Your task to perform on an android device: uninstall "Grab" Image 0: 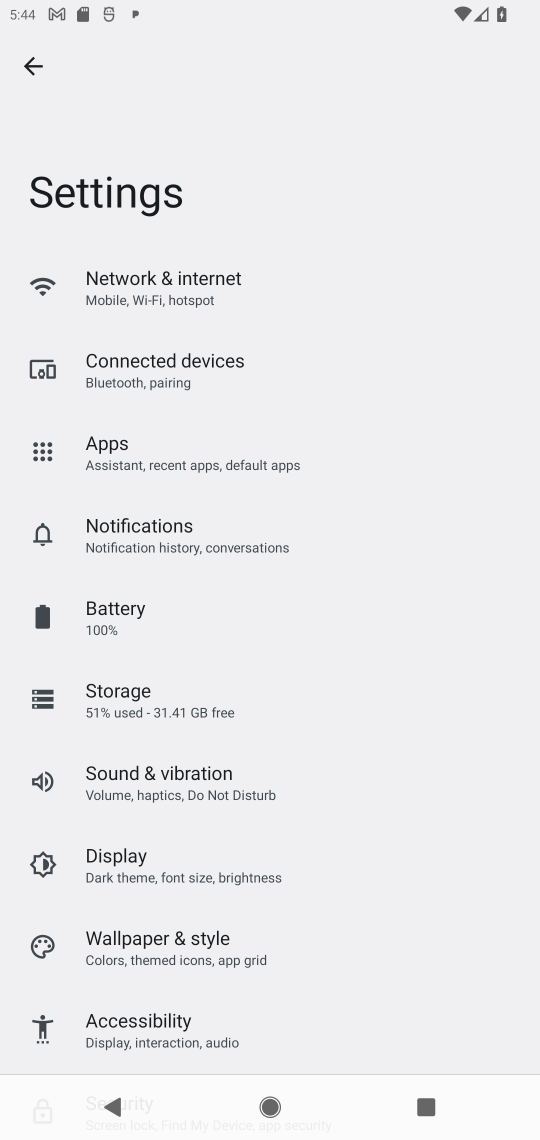
Step 0: press home button
Your task to perform on an android device: uninstall "Grab" Image 1: 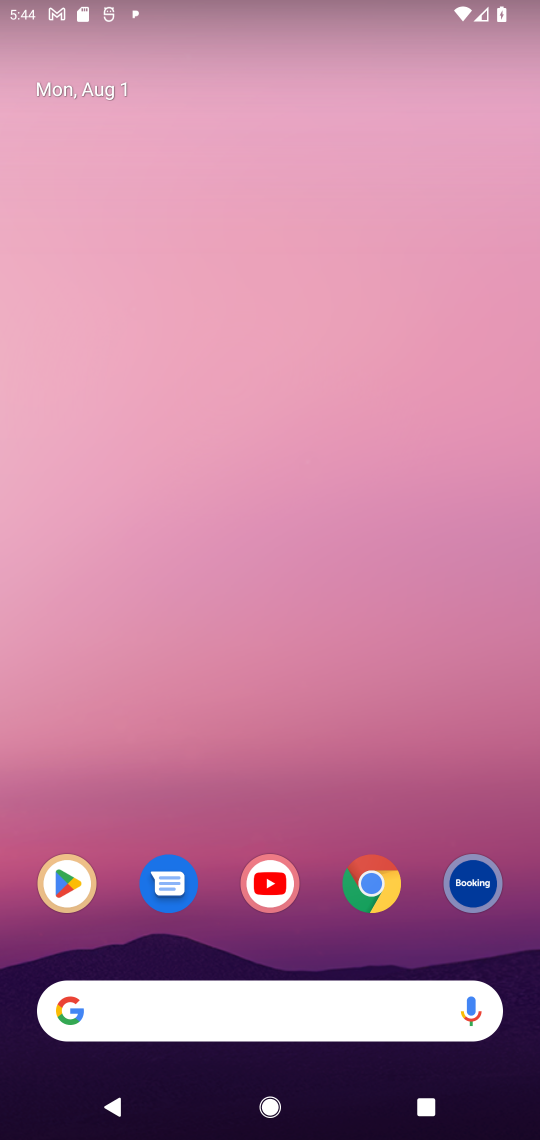
Step 1: click (65, 889)
Your task to perform on an android device: uninstall "Grab" Image 2: 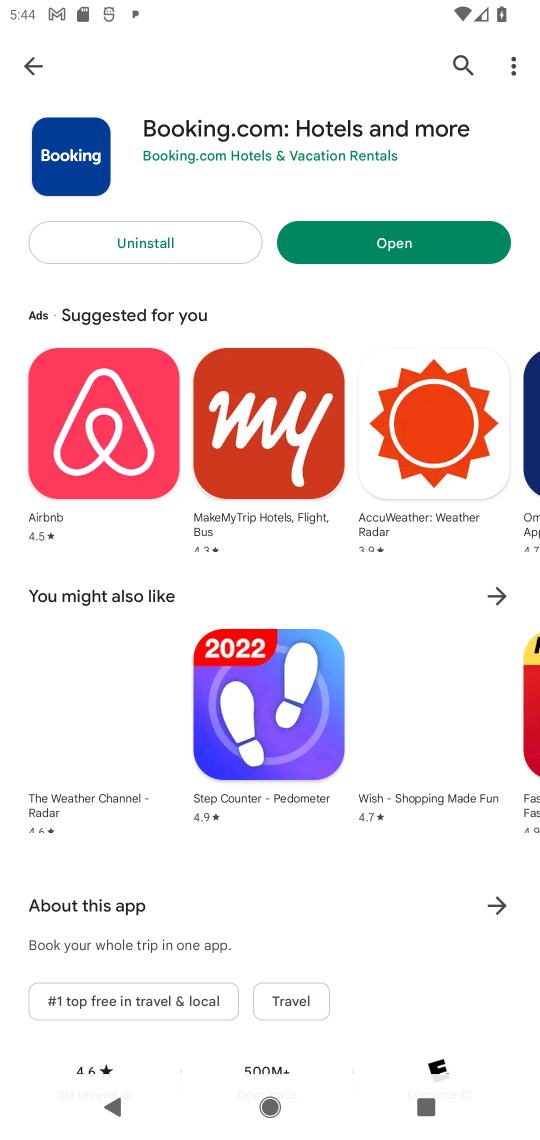
Step 2: click (37, 65)
Your task to perform on an android device: uninstall "Grab" Image 3: 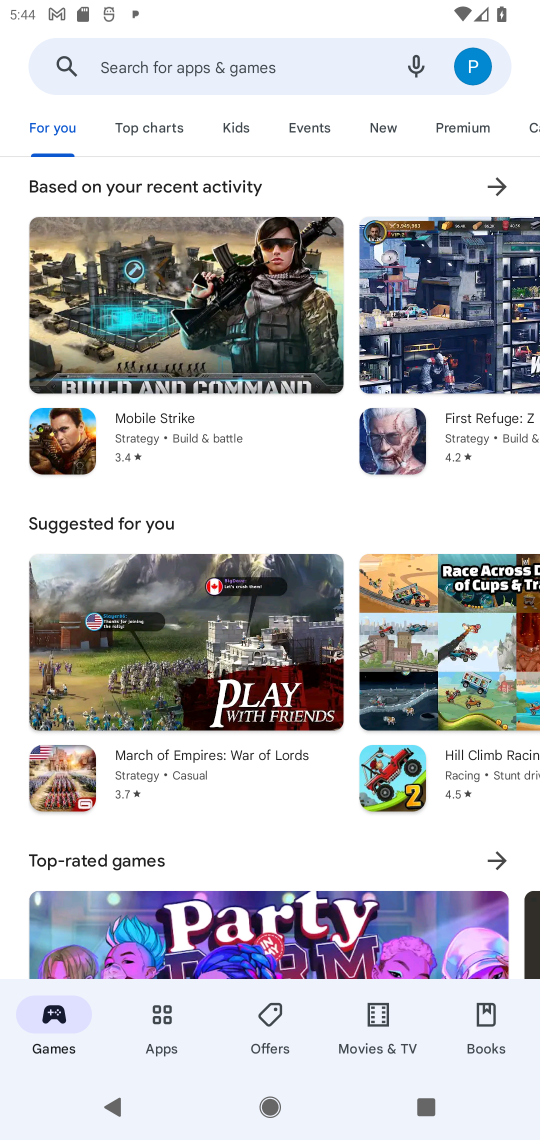
Step 3: click (198, 70)
Your task to perform on an android device: uninstall "Grab" Image 4: 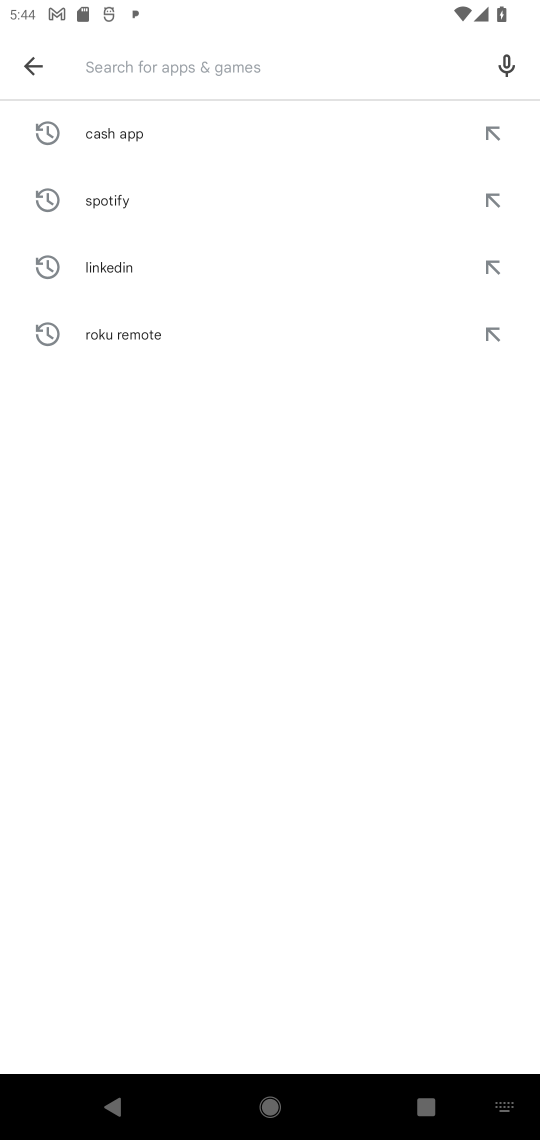
Step 4: type "Grab"
Your task to perform on an android device: uninstall "Grab" Image 5: 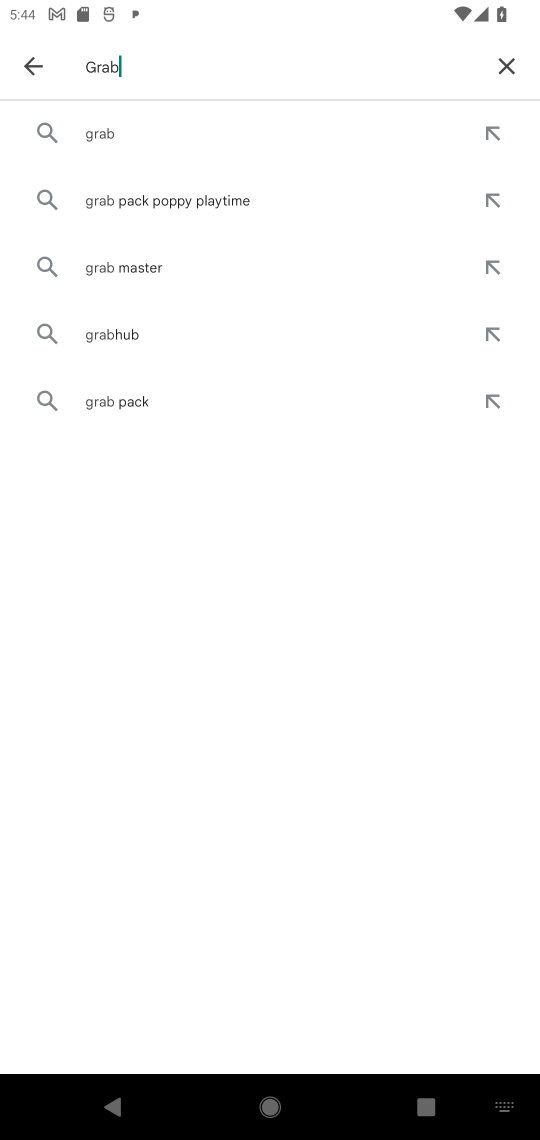
Step 5: click (93, 124)
Your task to perform on an android device: uninstall "Grab" Image 6: 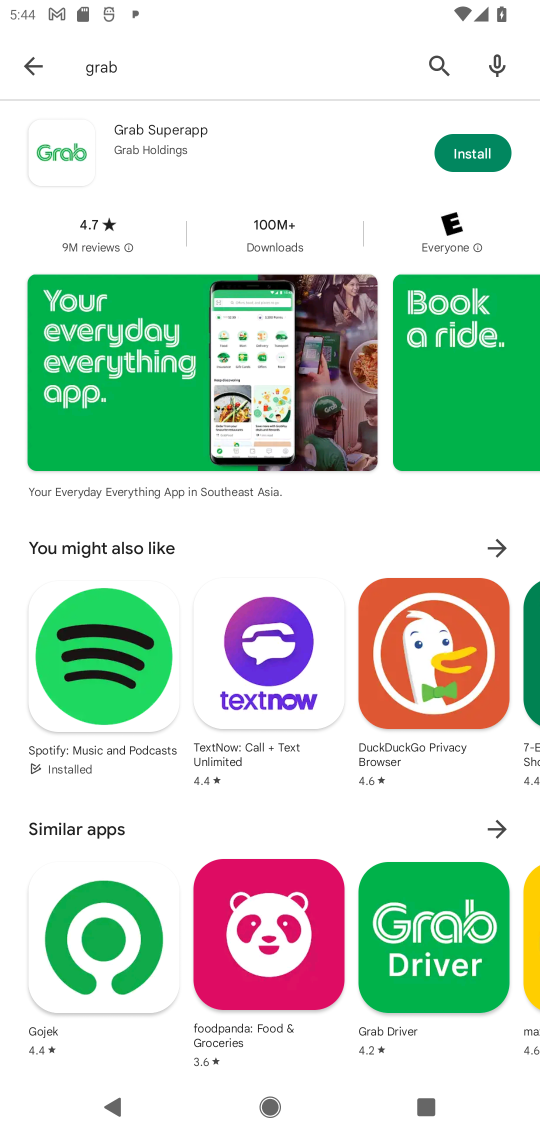
Step 6: task complete